Your task to perform on an android device: Toggle the flashlight Image 0: 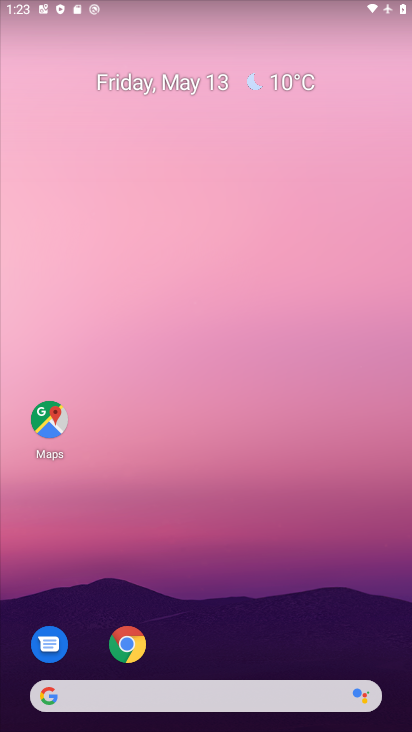
Step 0: drag from (201, 729) to (202, 91)
Your task to perform on an android device: Toggle the flashlight Image 1: 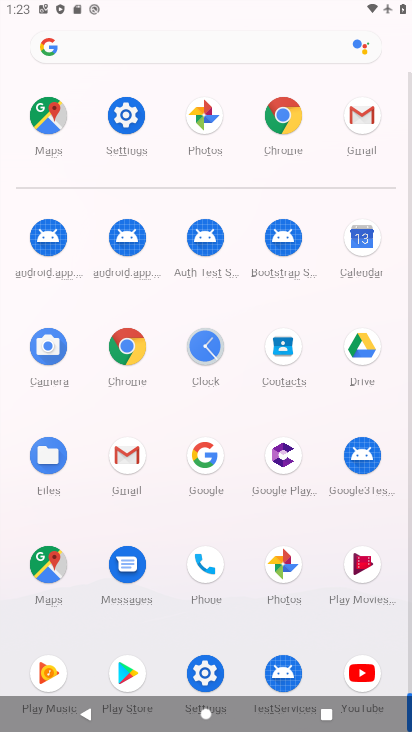
Step 1: click (129, 112)
Your task to perform on an android device: Toggle the flashlight Image 2: 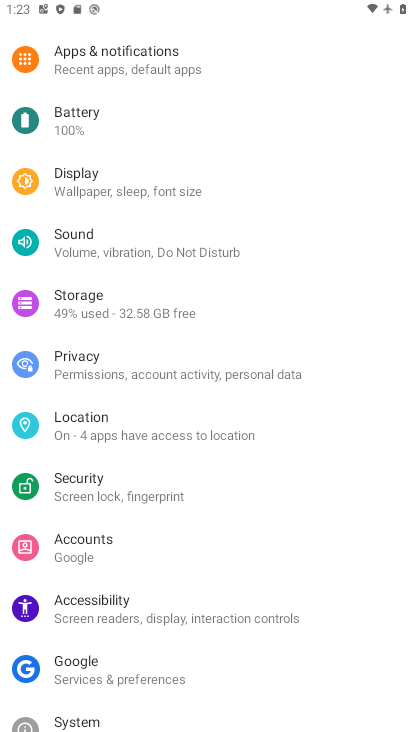
Step 2: task complete